Your task to perform on an android device: turn pop-ups off in chrome Image 0: 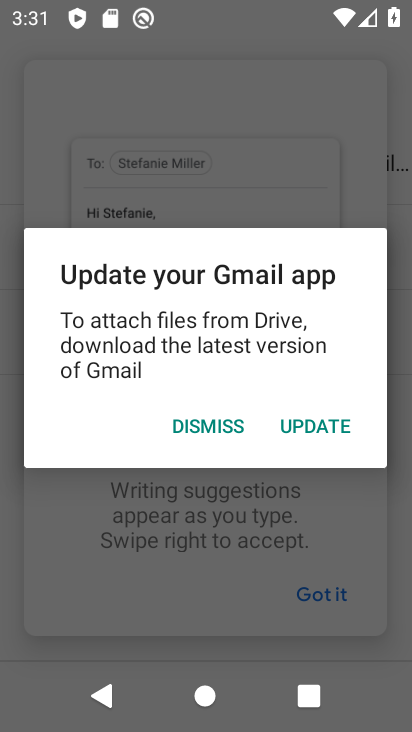
Step 0: press home button
Your task to perform on an android device: turn pop-ups off in chrome Image 1: 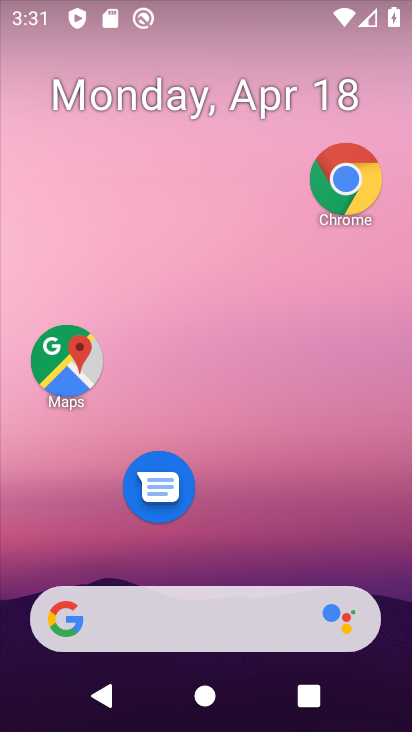
Step 1: drag from (191, 618) to (293, 45)
Your task to perform on an android device: turn pop-ups off in chrome Image 2: 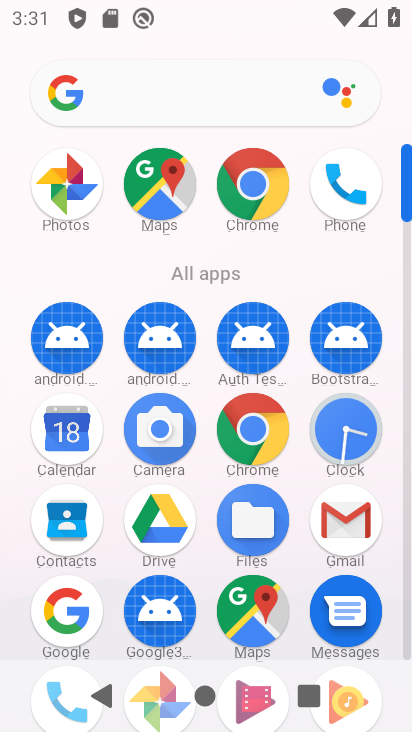
Step 2: click (258, 199)
Your task to perform on an android device: turn pop-ups off in chrome Image 3: 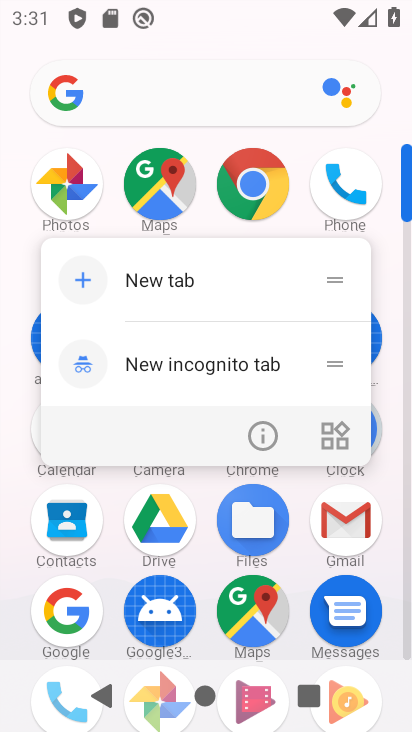
Step 3: click (251, 187)
Your task to perform on an android device: turn pop-ups off in chrome Image 4: 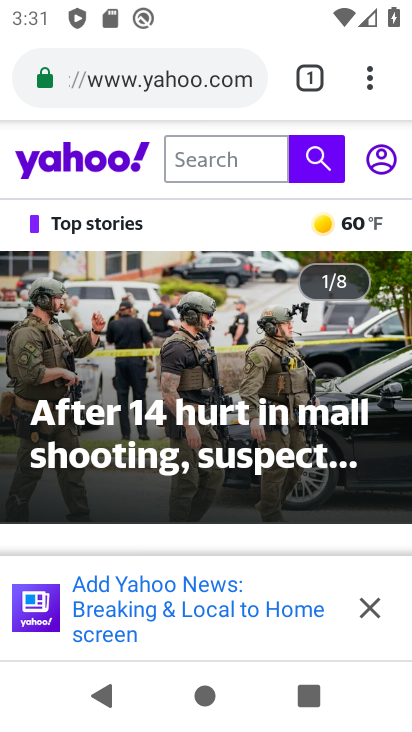
Step 4: click (368, 75)
Your task to perform on an android device: turn pop-ups off in chrome Image 5: 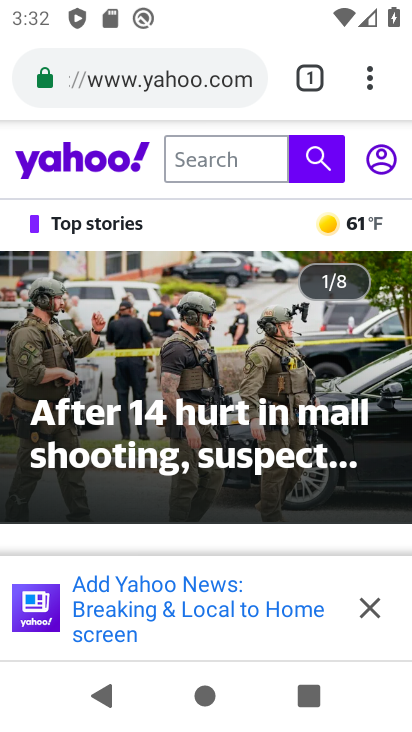
Step 5: click (368, 75)
Your task to perform on an android device: turn pop-ups off in chrome Image 6: 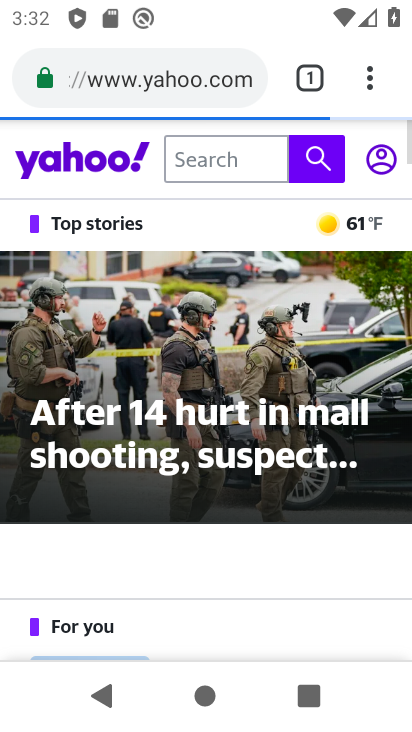
Step 6: click (364, 86)
Your task to perform on an android device: turn pop-ups off in chrome Image 7: 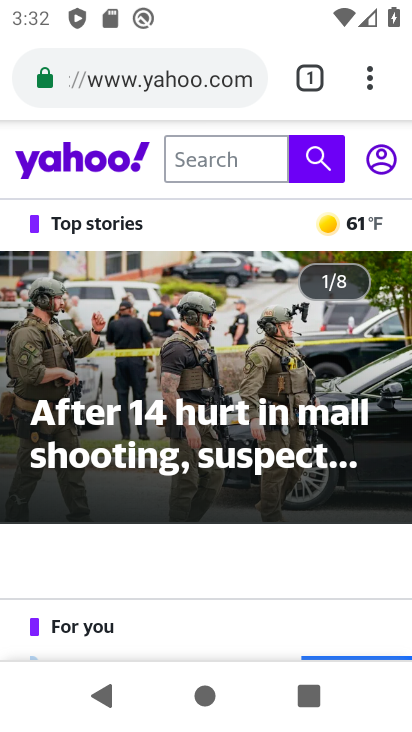
Step 7: click (365, 89)
Your task to perform on an android device: turn pop-ups off in chrome Image 8: 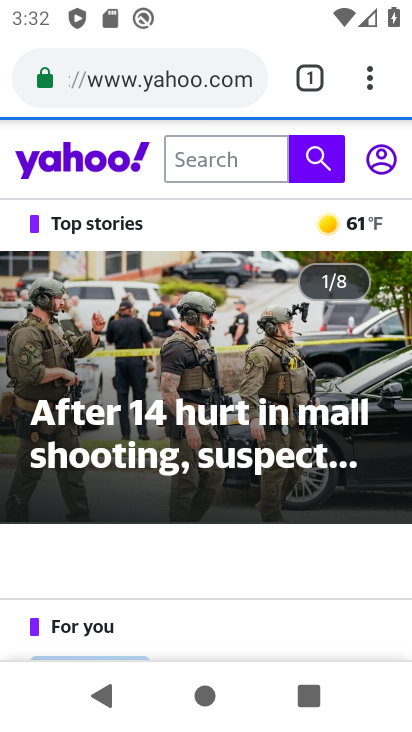
Step 8: click (360, 93)
Your task to perform on an android device: turn pop-ups off in chrome Image 9: 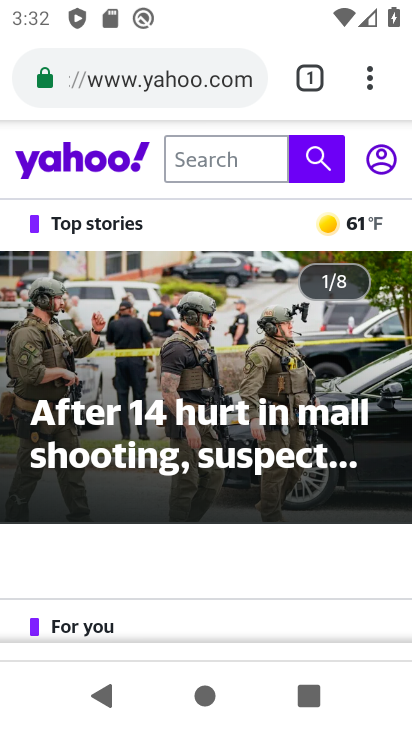
Step 9: click (373, 83)
Your task to perform on an android device: turn pop-ups off in chrome Image 10: 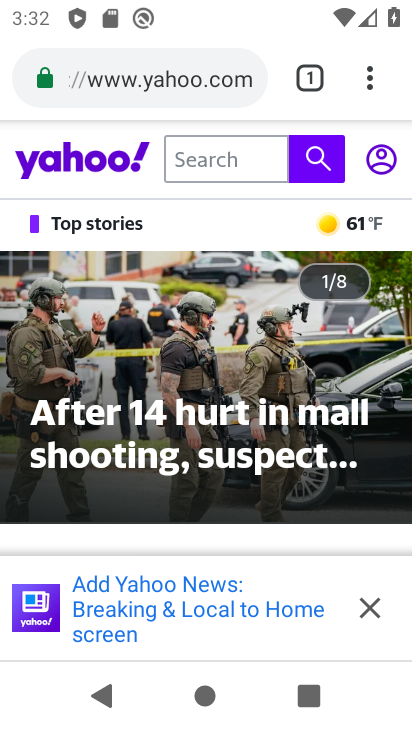
Step 10: click (353, 77)
Your task to perform on an android device: turn pop-ups off in chrome Image 11: 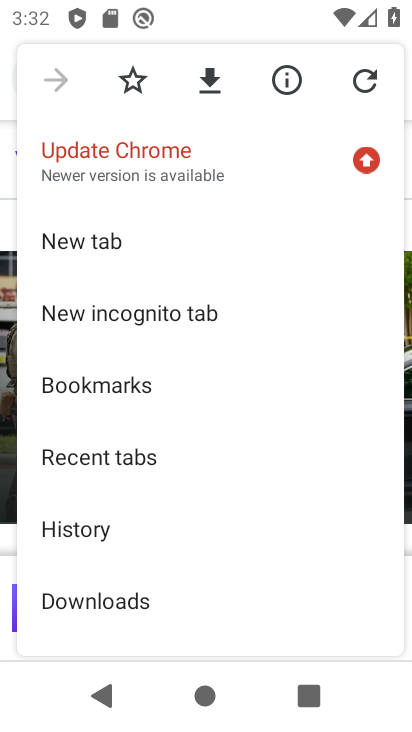
Step 11: drag from (171, 561) to (331, 204)
Your task to perform on an android device: turn pop-ups off in chrome Image 12: 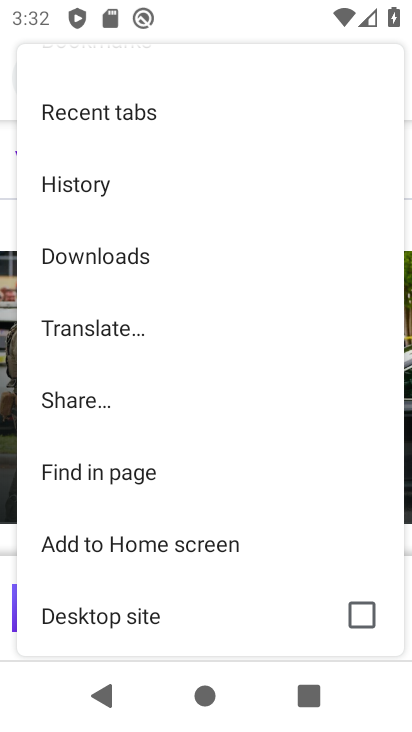
Step 12: drag from (154, 575) to (277, 189)
Your task to perform on an android device: turn pop-ups off in chrome Image 13: 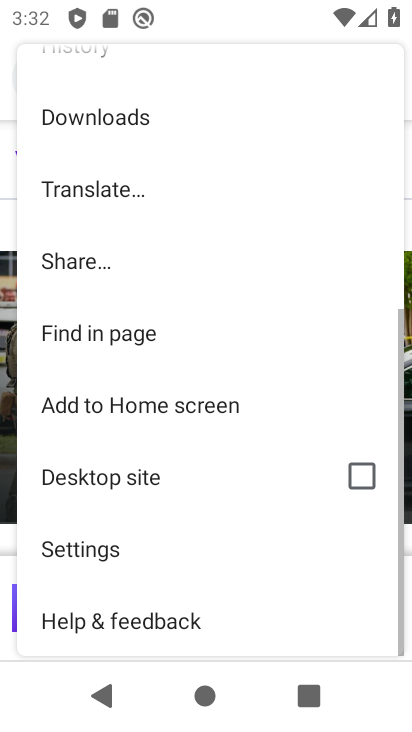
Step 13: click (108, 548)
Your task to perform on an android device: turn pop-ups off in chrome Image 14: 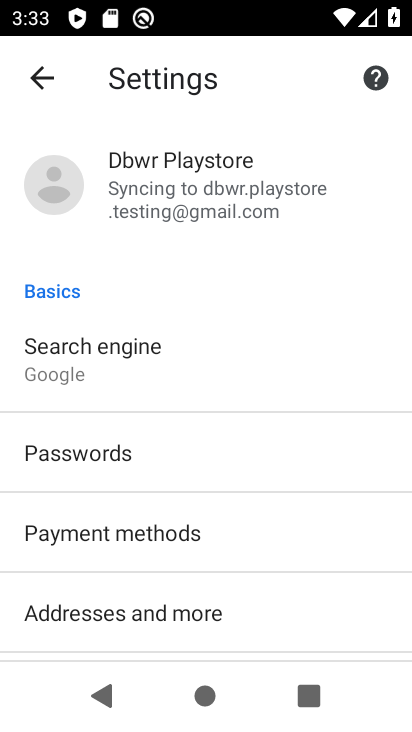
Step 14: drag from (170, 573) to (335, 210)
Your task to perform on an android device: turn pop-ups off in chrome Image 15: 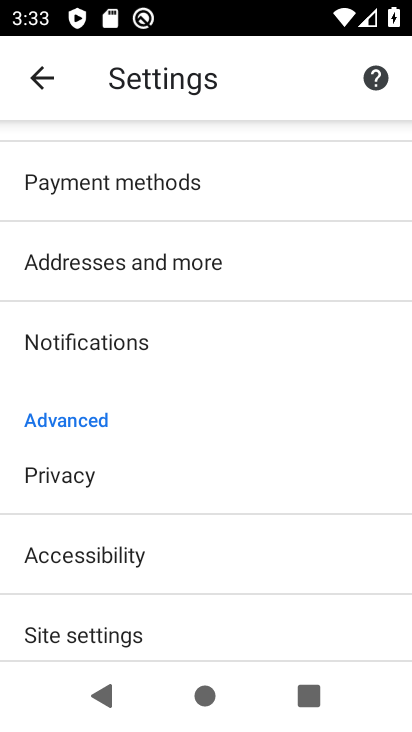
Step 15: drag from (139, 594) to (294, 221)
Your task to perform on an android device: turn pop-ups off in chrome Image 16: 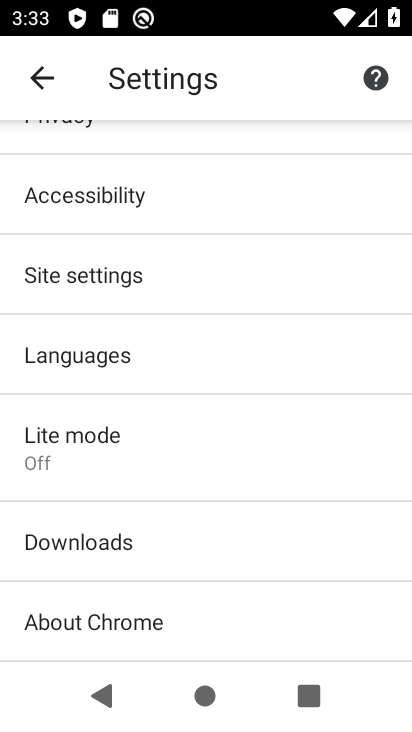
Step 16: click (120, 269)
Your task to perform on an android device: turn pop-ups off in chrome Image 17: 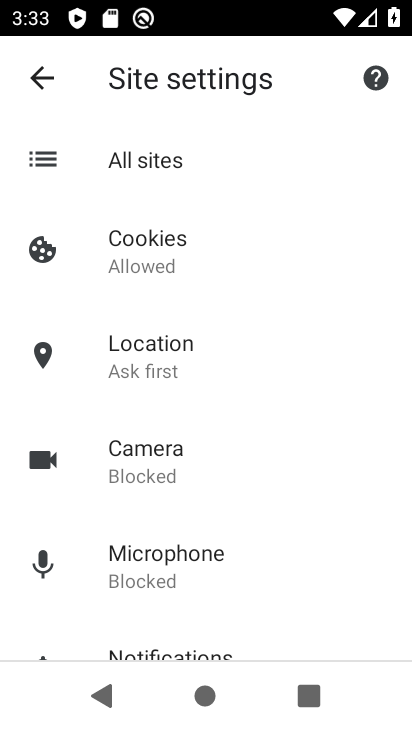
Step 17: drag from (185, 548) to (352, 101)
Your task to perform on an android device: turn pop-ups off in chrome Image 18: 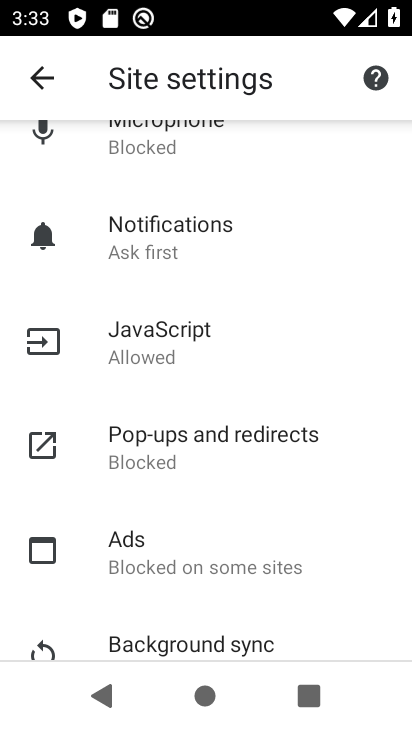
Step 18: click (215, 439)
Your task to perform on an android device: turn pop-ups off in chrome Image 19: 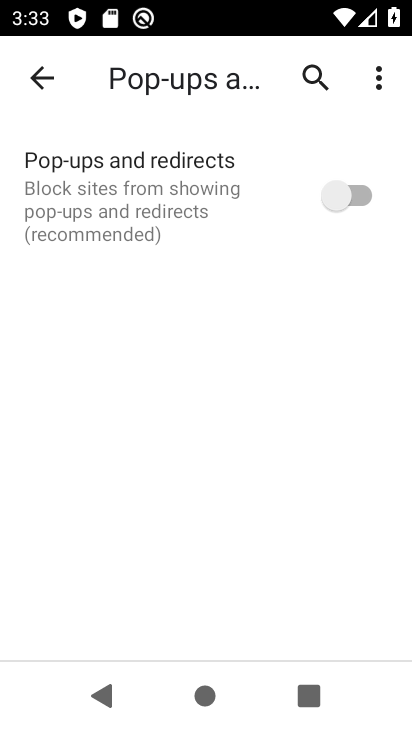
Step 19: task complete